Your task to perform on an android device: Go to internet settings Image 0: 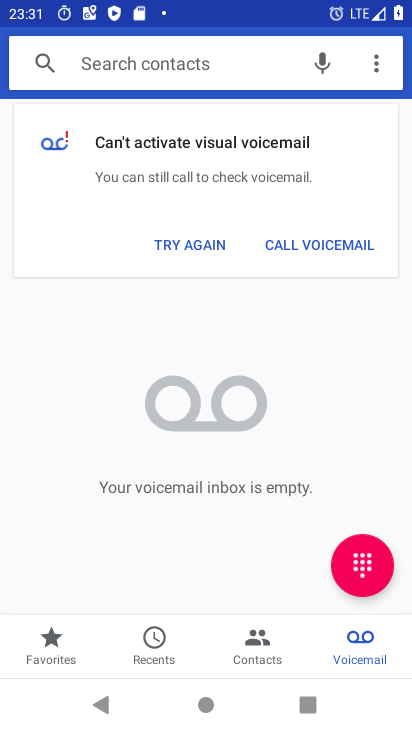
Step 0: press home button
Your task to perform on an android device: Go to internet settings Image 1: 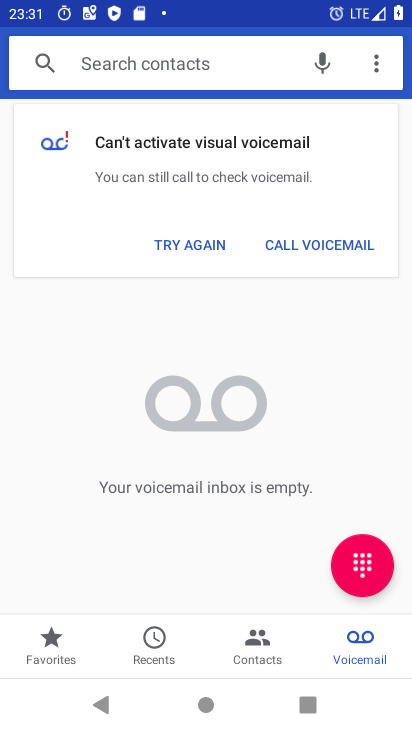
Step 1: press home button
Your task to perform on an android device: Go to internet settings Image 2: 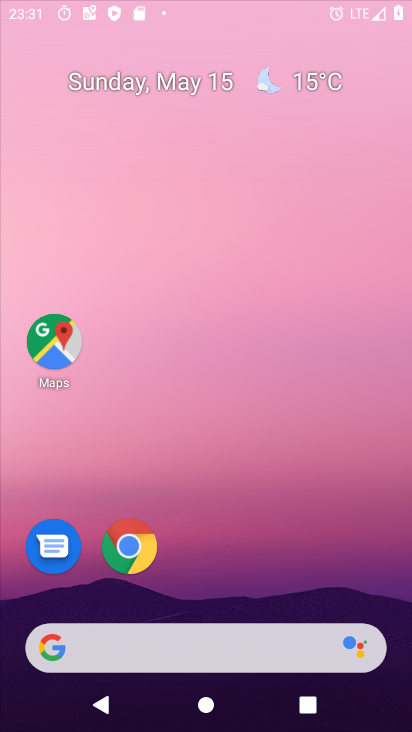
Step 2: press home button
Your task to perform on an android device: Go to internet settings Image 3: 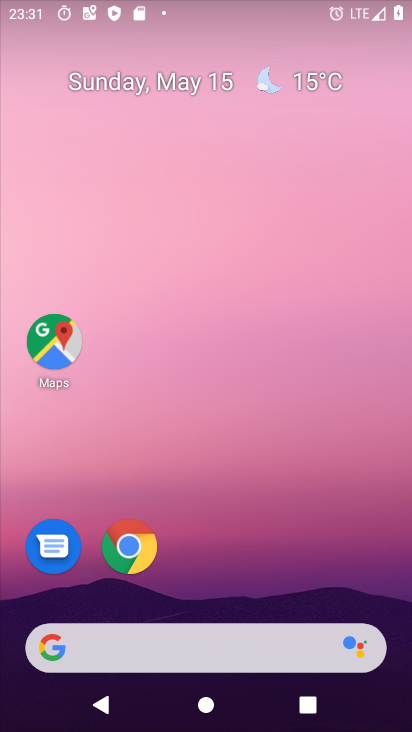
Step 3: press home button
Your task to perform on an android device: Go to internet settings Image 4: 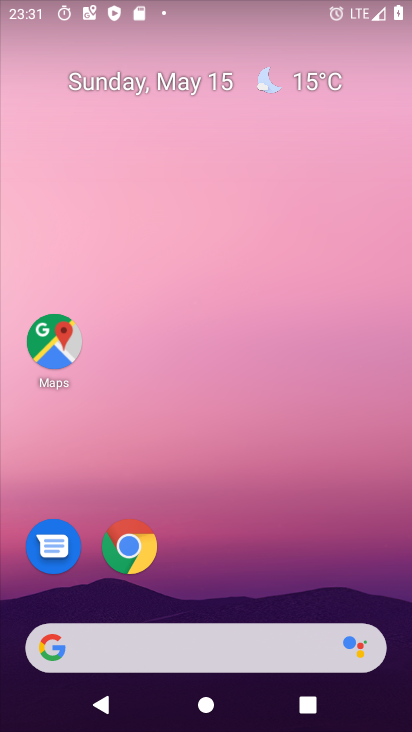
Step 4: drag from (187, 642) to (108, 70)
Your task to perform on an android device: Go to internet settings Image 5: 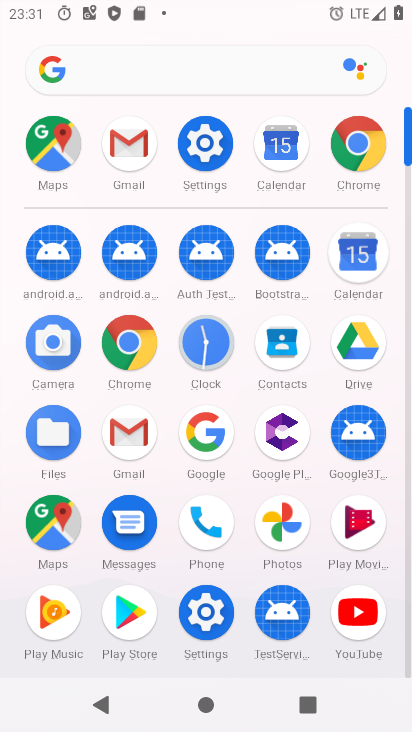
Step 5: click (205, 149)
Your task to perform on an android device: Go to internet settings Image 6: 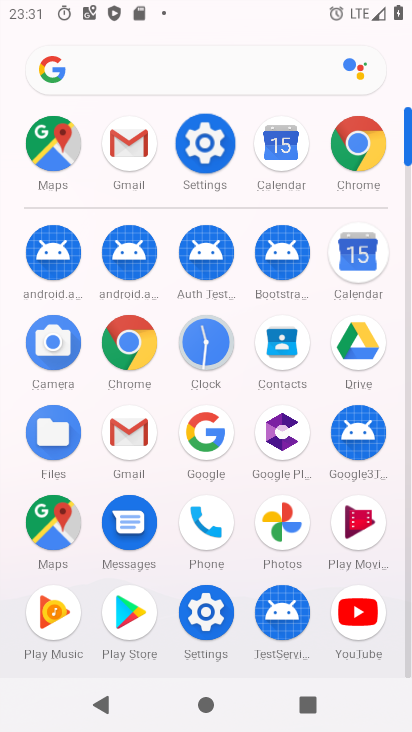
Step 6: click (205, 149)
Your task to perform on an android device: Go to internet settings Image 7: 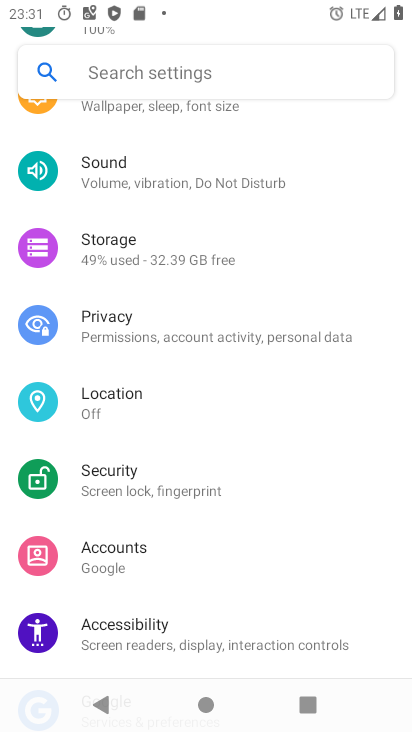
Step 7: drag from (136, 157) to (151, 505)
Your task to perform on an android device: Go to internet settings Image 8: 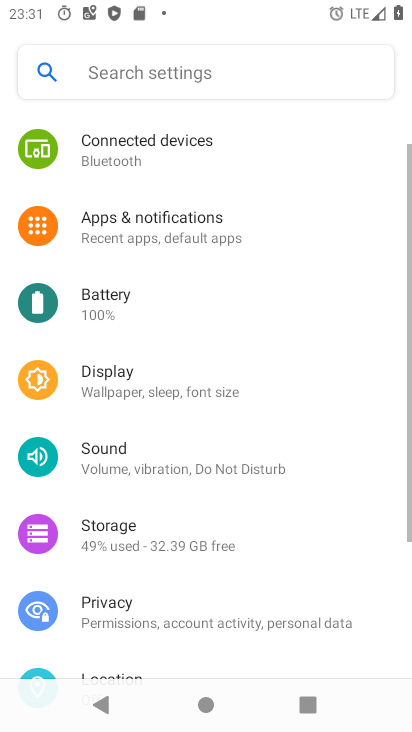
Step 8: drag from (99, 251) to (183, 497)
Your task to perform on an android device: Go to internet settings Image 9: 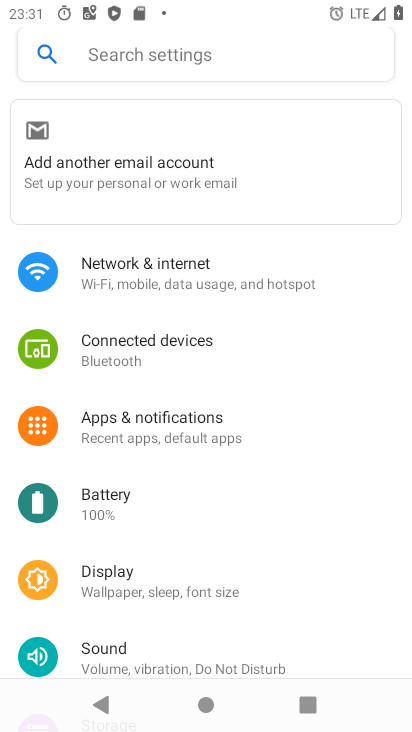
Step 9: click (114, 271)
Your task to perform on an android device: Go to internet settings Image 10: 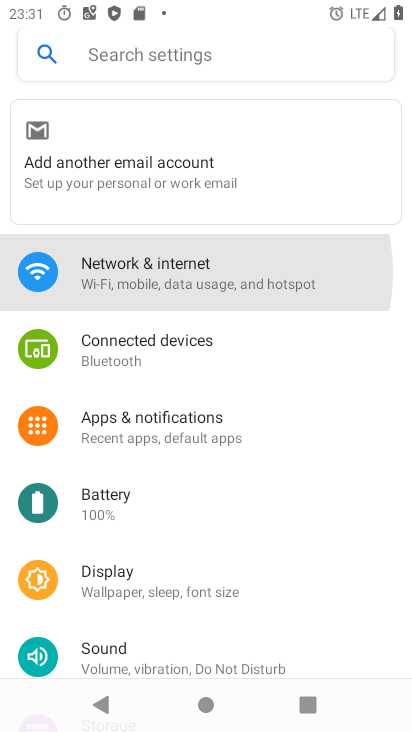
Step 10: click (116, 276)
Your task to perform on an android device: Go to internet settings Image 11: 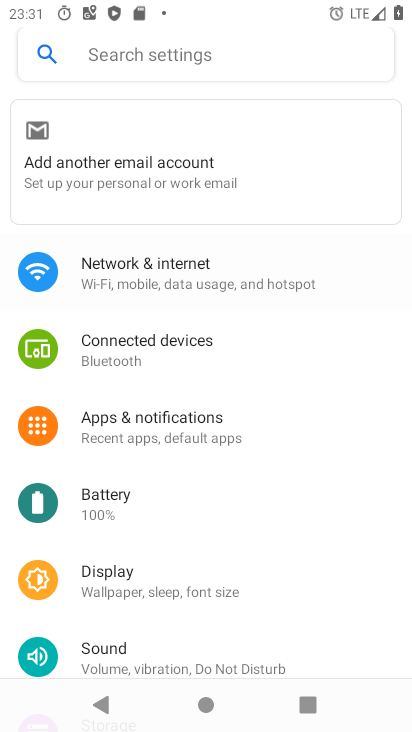
Step 11: click (116, 282)
Your task to perform on an android device: Go to internet settings Image 12: 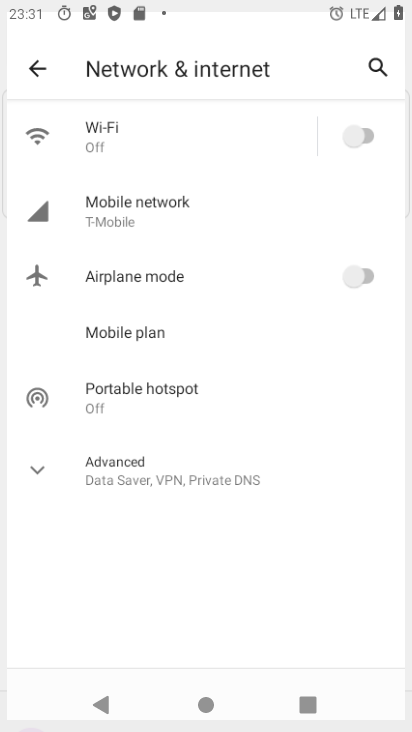
Step 12: click (116, 284)
Your task to perform on an android device: Go to internet settings Image 13: 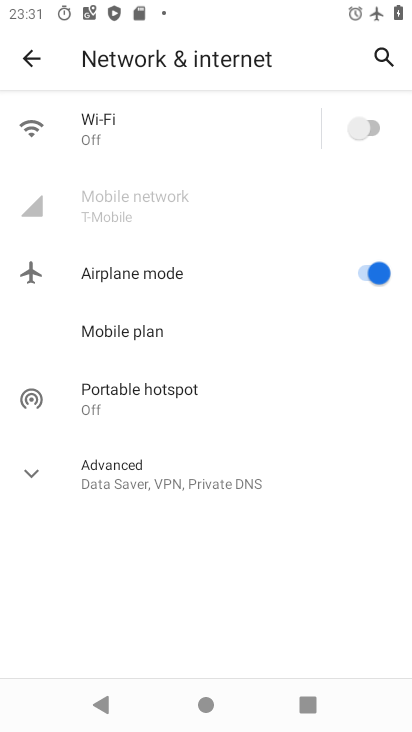
Step 13: click (364, 131)
Your task to perform on an android device: Go to internet settings Image 14: 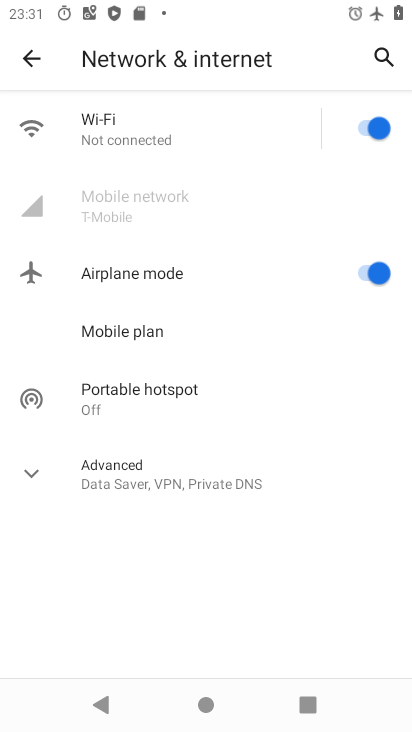
Step 14: click (369, 277)
Your task to perform on an android device: Go to internet settings Image 15: 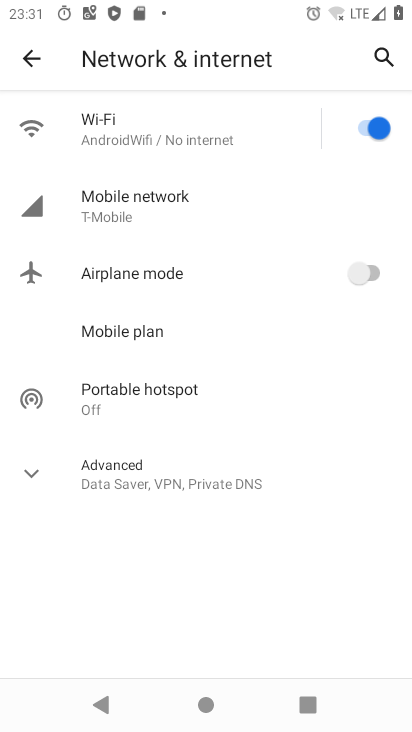
Step 15: task complete